Your task to perform on an android device: Go to Google maps Image 0: 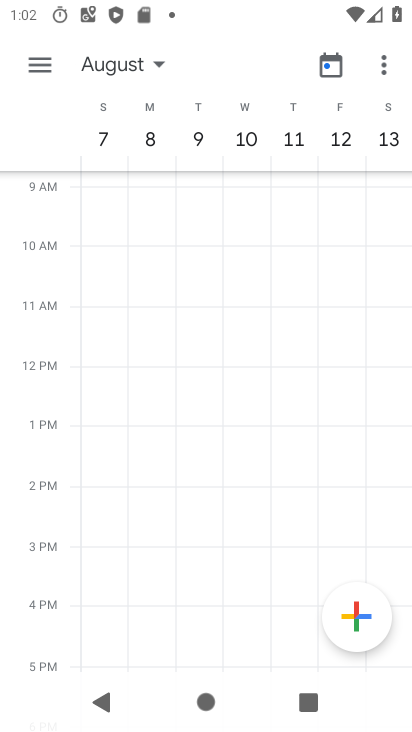
Step 0: press home button
Your task to perform on an android device: Go to Google maps Image 1: 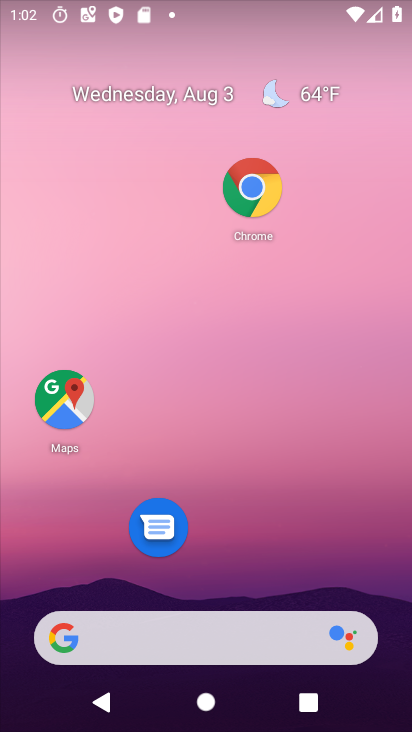
Step 1: click (63, 396)
Your task to perform on an android device: Go to Google maps Image 2: 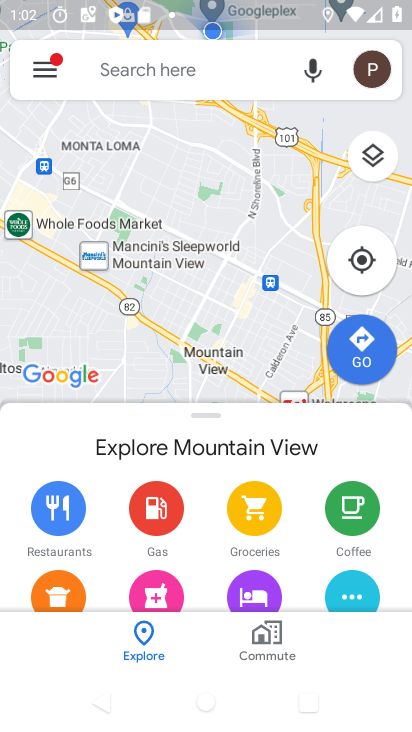
Step 2: task complete